Your task to perform on an android device: What is the recent news? Image 0: 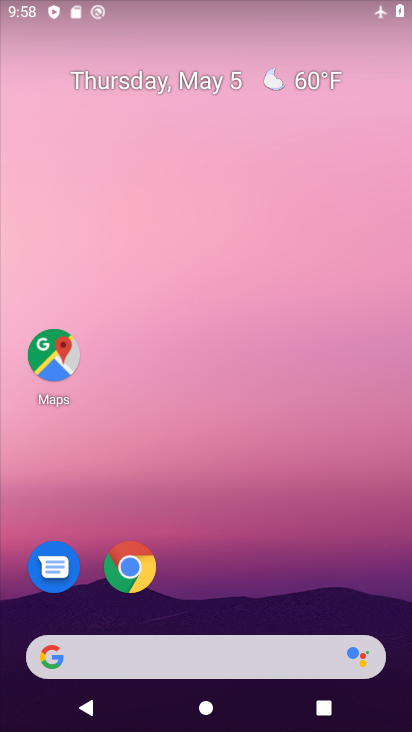
Step 0: drag from (214, 597) to (198, 55)
Your task to perform on an android device: What is the recent news? Image 1: 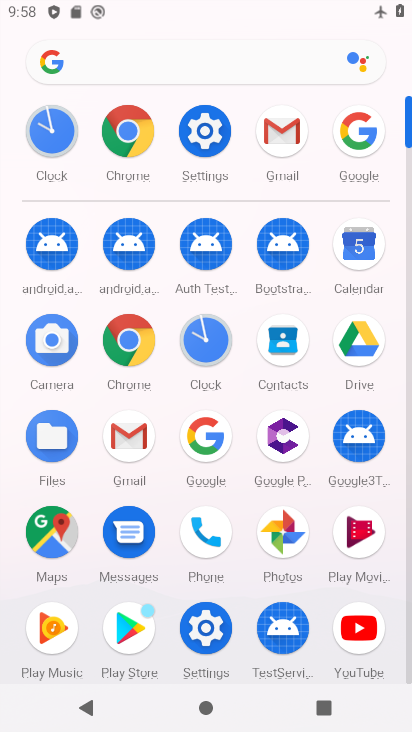
Step 1: click (346, 129)
Your task to perform on an android device: What is the recent news? Image 2: 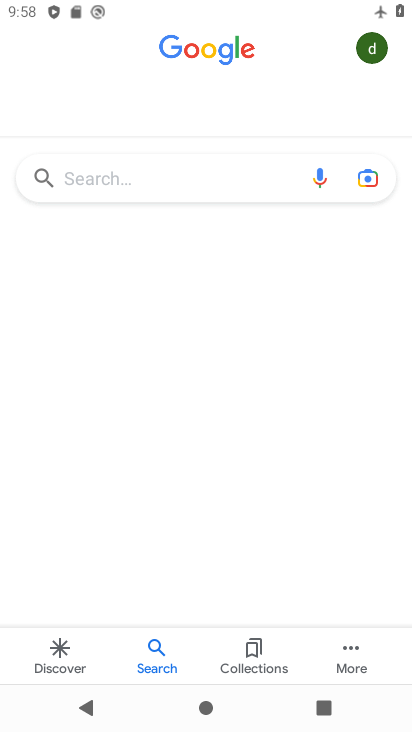
Step 2: type "recent news"
Your task to perform on an android device: What is the recent news? Image 3: 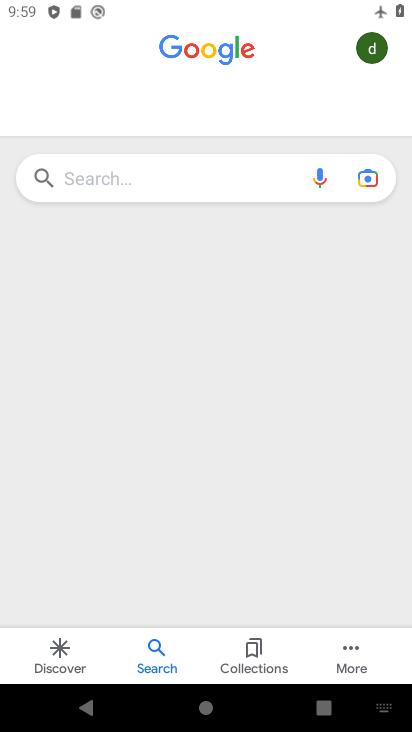
Step 3: task complete